Your task to perform on an android device: Go to Google maps Image 0: 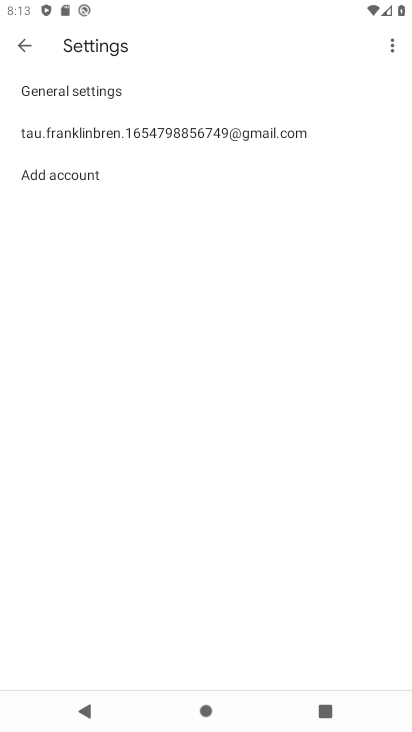
Step 0: press home button
Your task to perform on an android device: Go to Google maps Image 1: 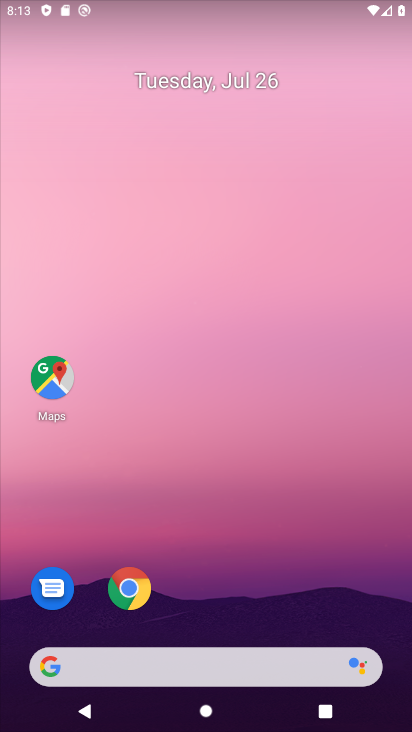
Step 1: click (55, 377)
Your task to perform on an android device: Go to Google maps Image 2: 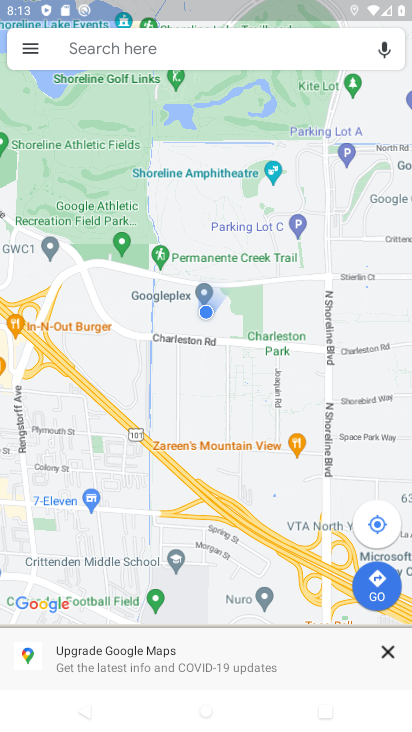
Step 2: task complete